Your task to perform on an android device: see sites visited before in the chrome app Image 0: 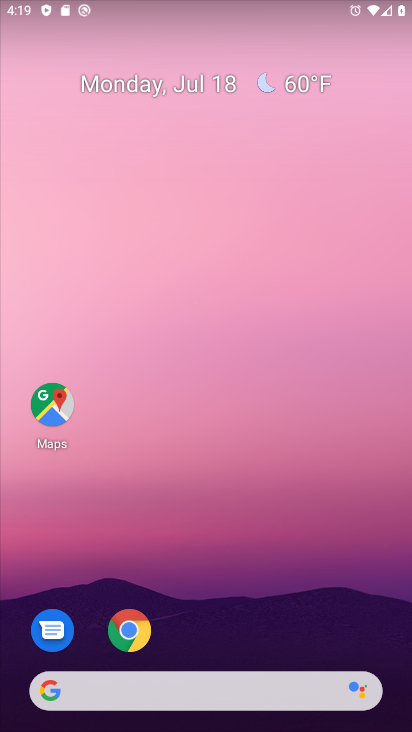
Step 0: click (132, 630)
Your task to perform on an android device: see sites visited before in the chrome app Image 1: 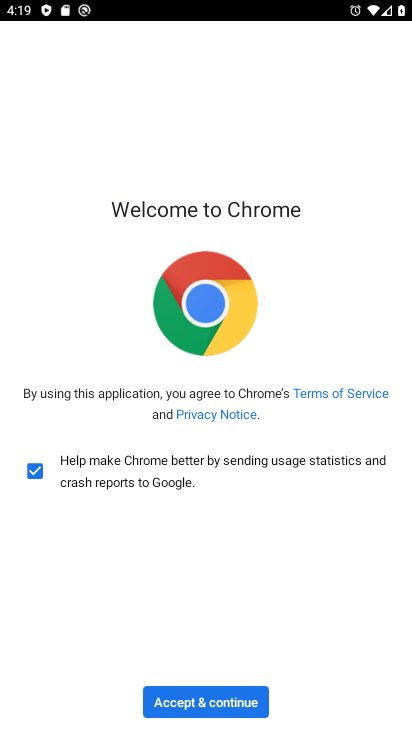
Step 1: click (208, 699)
Your task to perform on an android device: see sites visited before in the chrome app Image 2: 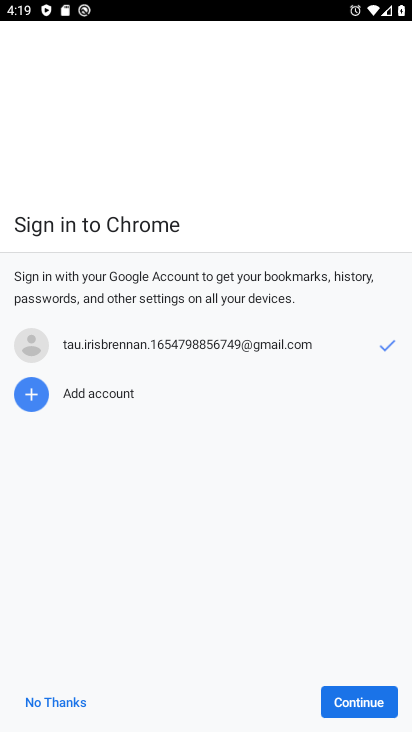
Step 2: click (339, 703)
Your task to perform on an android device: see sites visited before in the chrome app Image 3: 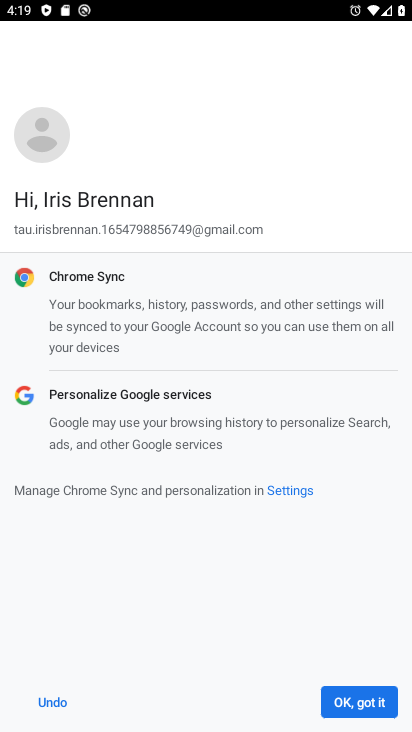
Step 3: click (369, 706)
Your task to perform on an android device: see sites visited before in the chrome app Image 4: 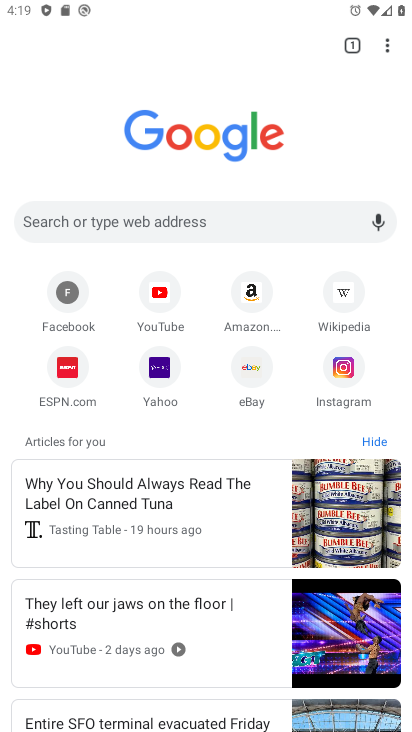
Step 4: click (389, 41)
Your task to perform on an android device: see sites visited before in the chrome app Image 5: 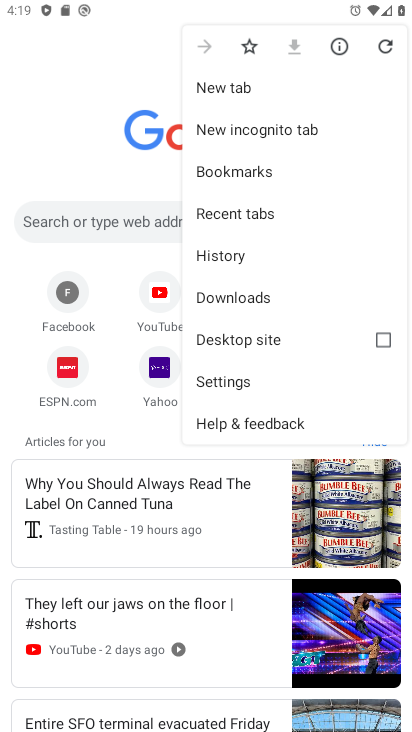
Step 5: click (216, 248)
Your task to perform on an android device: see sites visited before in the chrome app Image 6: 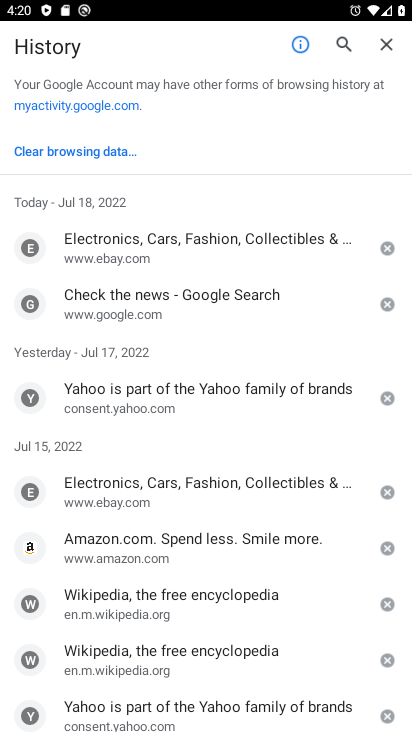
Step 6: task complete